Your task to perform on an android device: Open the phone app and click the voicemail tab. Image 0: 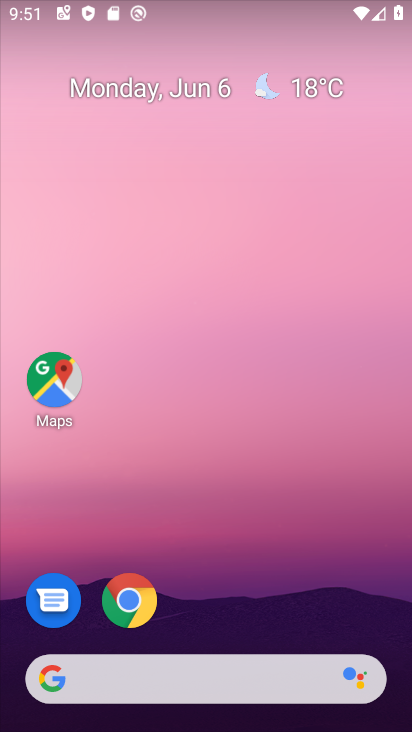
Step 0: drag from (314, 543) to (163, 29)
Your task to perform on an android device: Open the phone app and click the voicemail tab. Image 1: 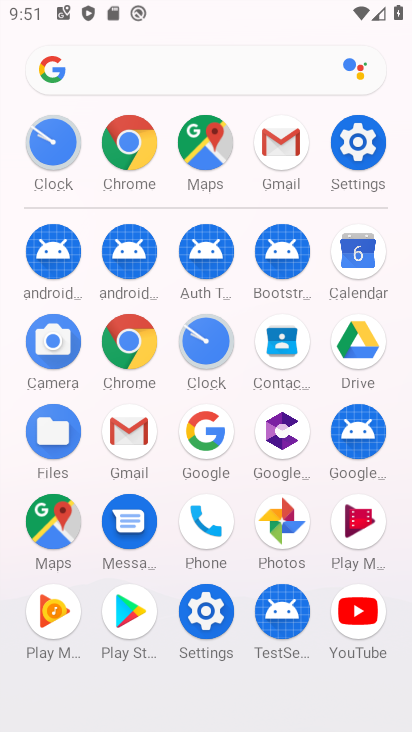
Step 1: click (204, 511)
Your task to perform on an android device: Open the phone app and click the voicemail tab. Image 2: 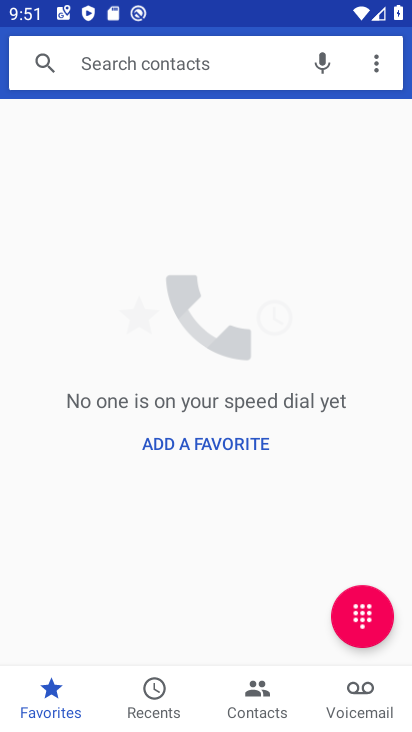
Step 2: click (368, 689)
Your task to perform on an android device: Open the phone app and click the voicemail tab. Image 3: 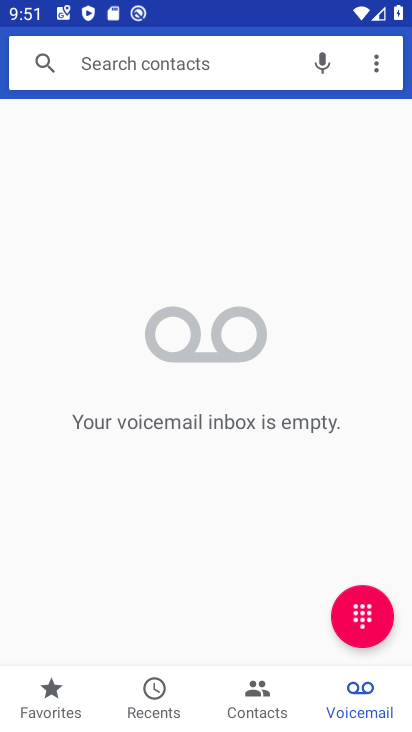
Step 3: task complete